Your task to perform on an android device: Open Amazon Image 0: 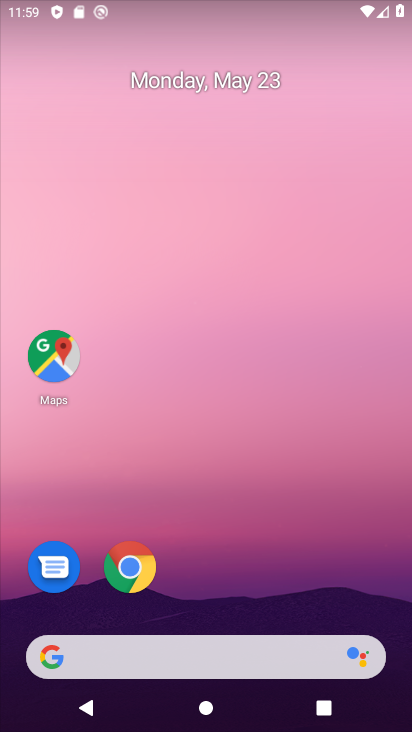
Step 0: click (148, 577)
Your task to perform on an android device: Open Amazon Image 1: 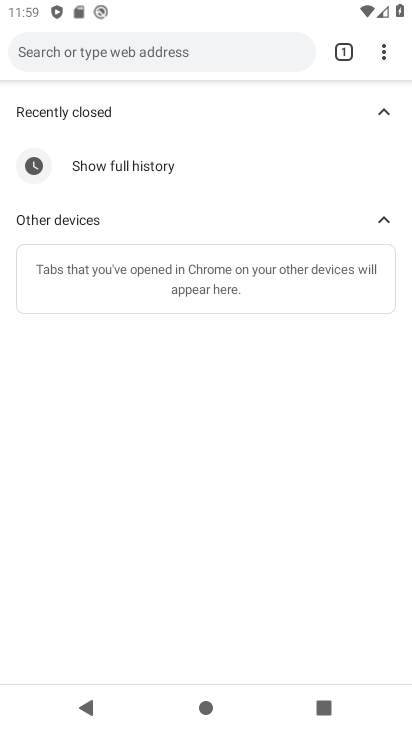
Step 1: click (384, 46)
Your task to perform on an android device: Open Amazon Image 2: 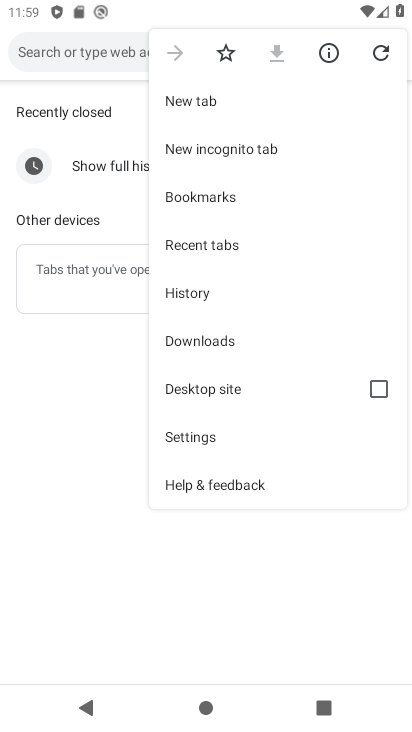
Step 2: click (253, 111)
Your task to perform on an android device: Open Amazon Image 3: 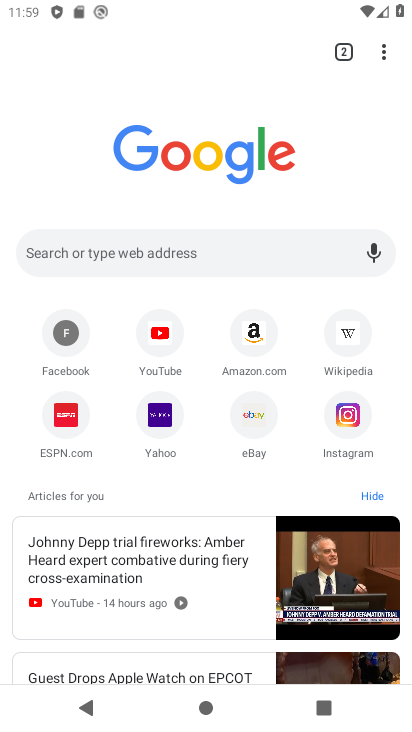
Step 3: click (265, 348)
Your task to perform on an android device: Open Amazon Image 4: 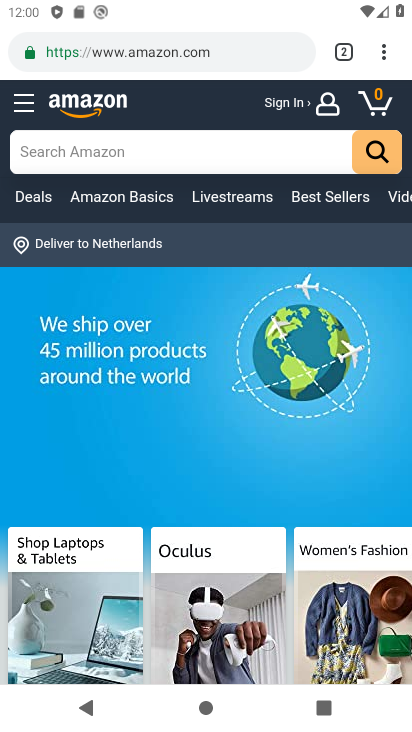
Step 4: task complete